Your task to perform on an android device: Go to notification settings Image 0: 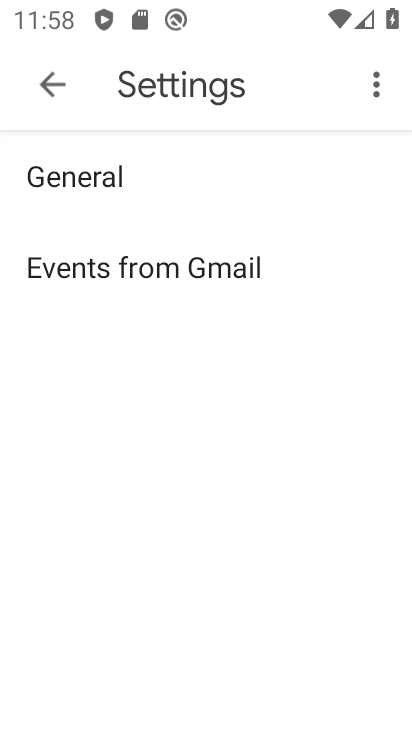
Step 0: press home button
Your task to perform on an android device: Go to notification settings Image 1: 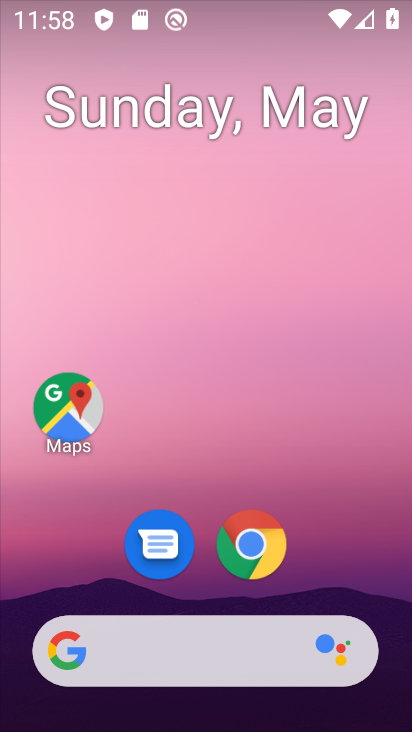
Step 1: drag from (345, 602) to (307, 7)
Your task to perform on an android device: Go to notification settings Image 2: 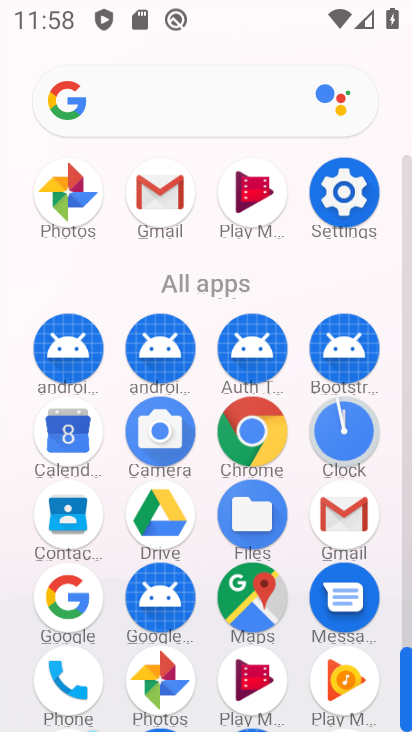
Step 2: drag from (304, 646) to (286, 273)
Your task to perform on an android device: Go to notification settings Image 3: 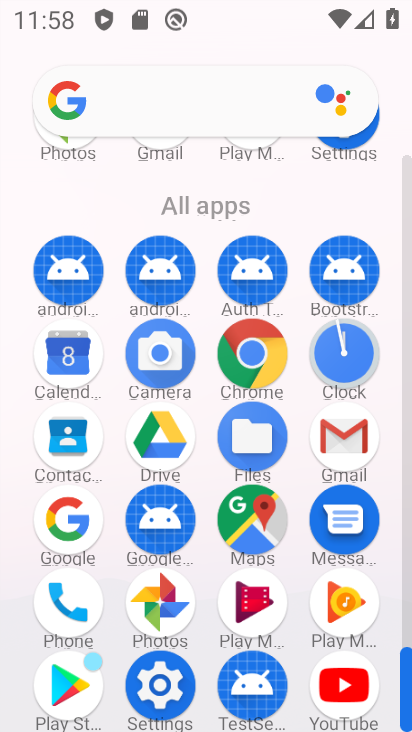
Step 3: click (159, 686)
Your task to perform on an android device: Go to notification settings Image 4: 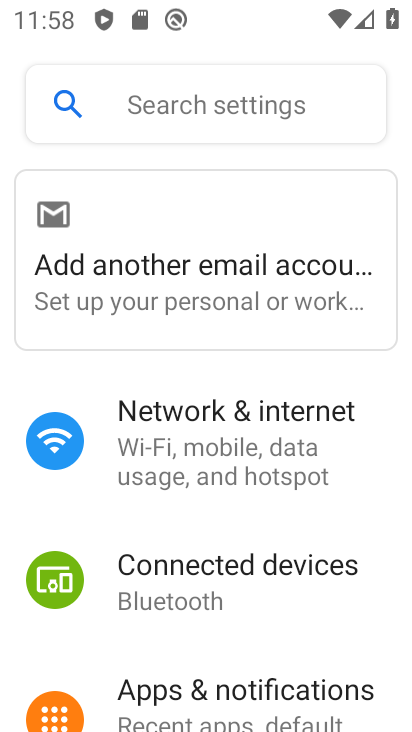
Step 4: click (281, 715)
Your task to perform on an android device: Go to notification settings Image 5: 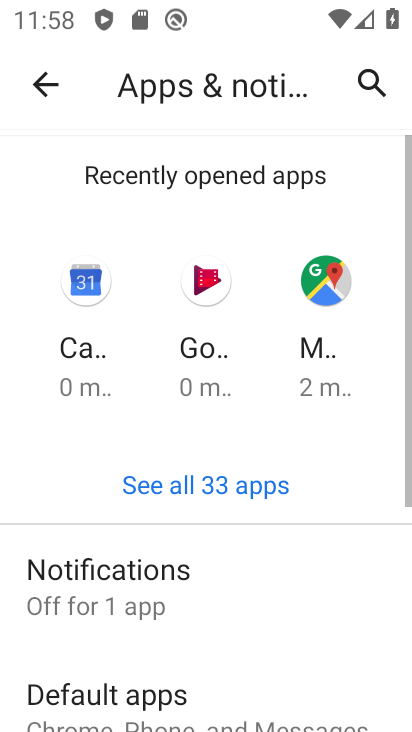
Step 5: drag from (232, 712) to (218, 286)
Your task to perform on an android device: Go to notification settings Image 6: 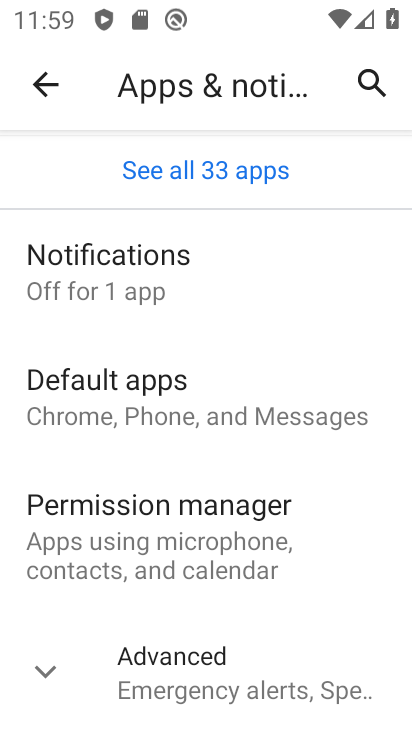
Step 6: click (197, 675)
Your task to perform on an android device: Go to notification settings Image 7: 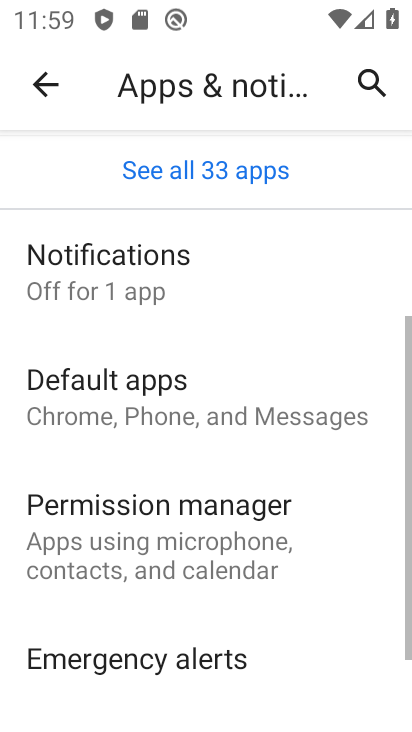
Step 7: drag from (214, 678) to (220, 190)
Your task to perform on an android device: Go to notification settings Image 8: 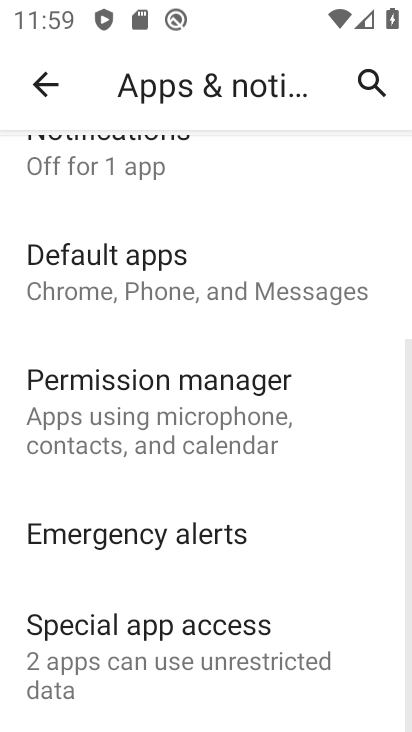
Step 8: drag from (228, 212) to (234, 694)
Your task to perform on an android device: Go to notification settings Image 9: 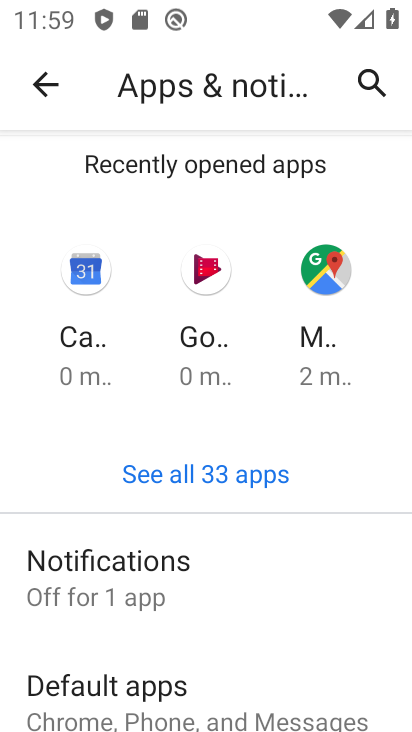
Step 9: click (176, 595)
Your task to perform on an android device: Go to notification settings Image 10: 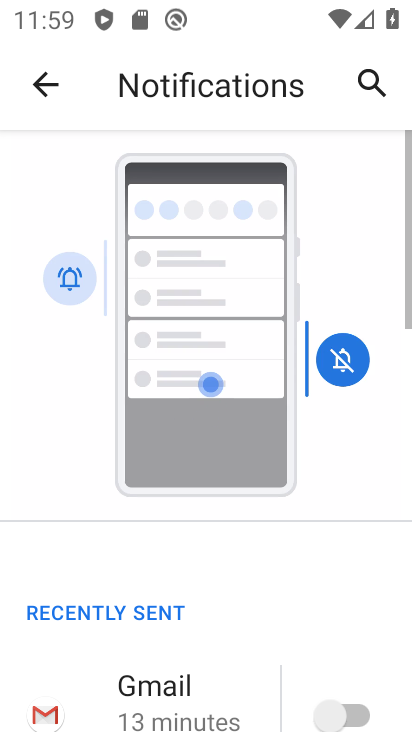
Step 10: drag from (279, 723) to (244, 90)
Your task to perform on an android device: Go to notification settings Image 11: 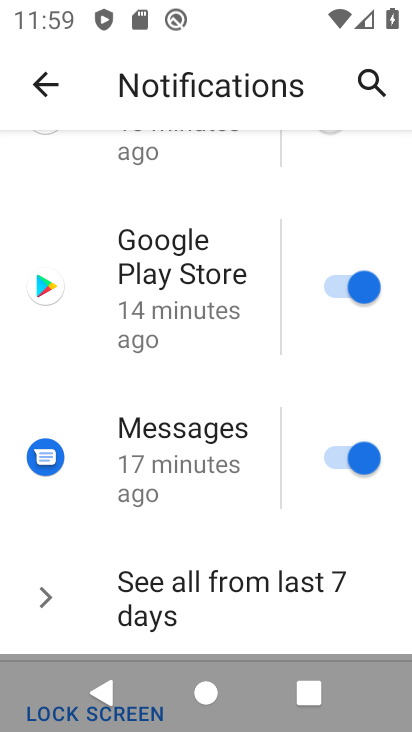
Step 11: drag from (214, 651) to (196, 269)
Your task to perform on an android device: Go to notification settings Image 12: 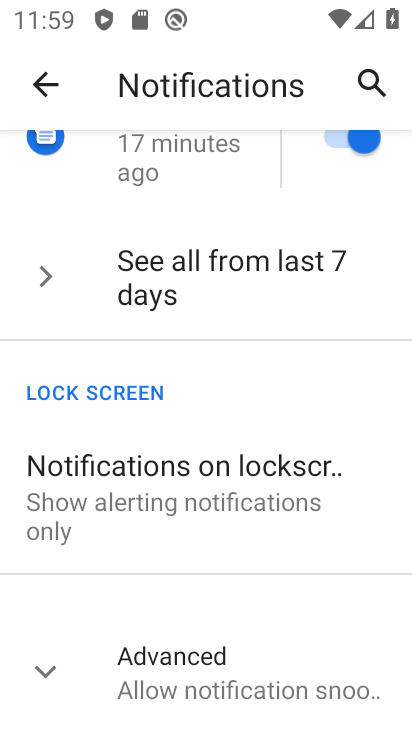
Step 12: click (235, 689)
Your task to perform on an android device: Go to notification settings Image 13: 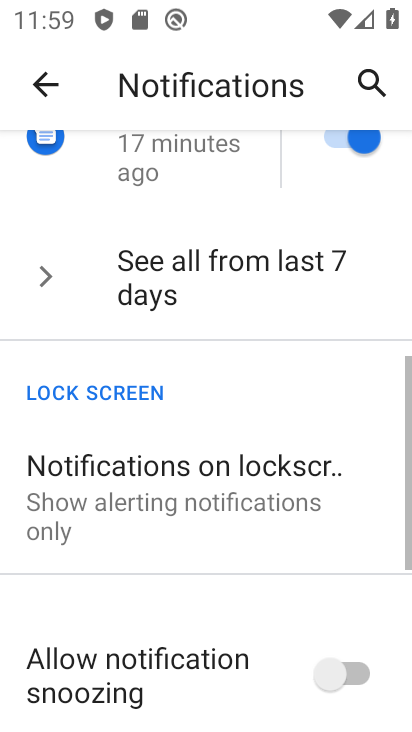
Step 13: task complete